Your task to perform on an android device: turn off translation in the chrome app Image 0: 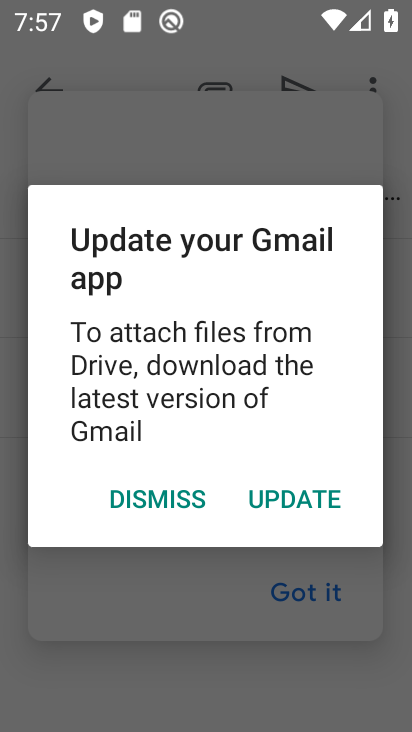
Step 0: press home button
Your task to perform on an android device: turn off translation in the chrome app Image 1: 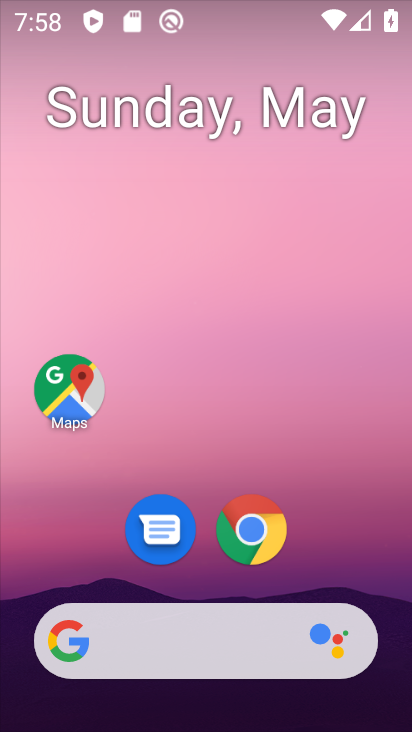
Step 1: click (255, 546)
Your task to perform on an android device: turn off translation in the chrome app Image 2: 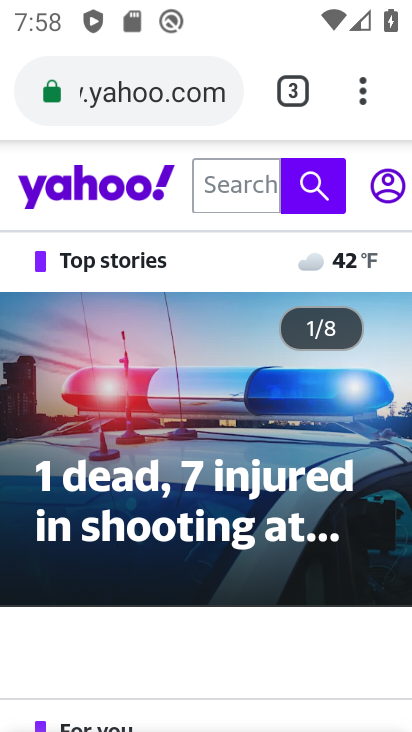
Step 2: click (378, 86)
Your task to perform on an android device: turn off translation in the chrome app Image 3: 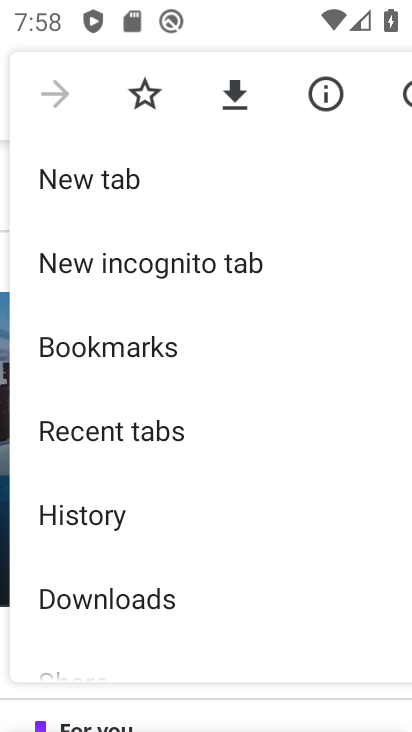
Step 3: drag from (237, 573) to (268, 225)
Your task to perform on an android device: turn off translation in the chrome app Image 4: 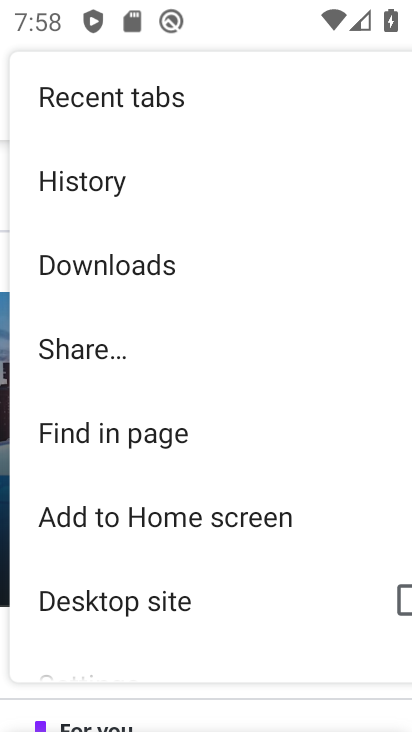
Step 4: drag from (206, 617) to (243, 359)
Your task to perform on an android device: turn off translation in the chrome app Image 5: 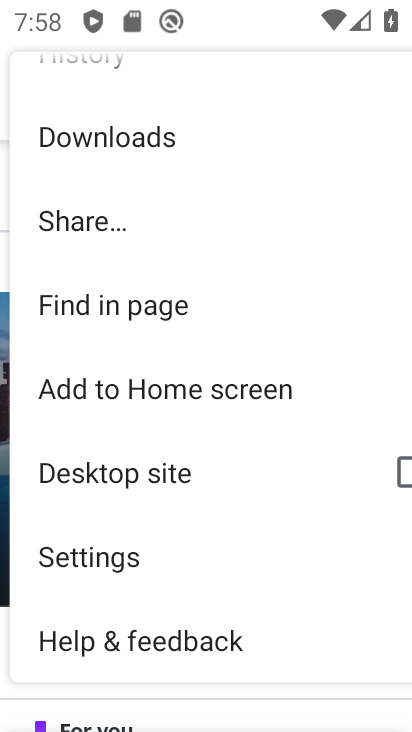
Step 5: click (220, 538)
Your task to perform on an android device: turn off translation in the chrome app Image 6: 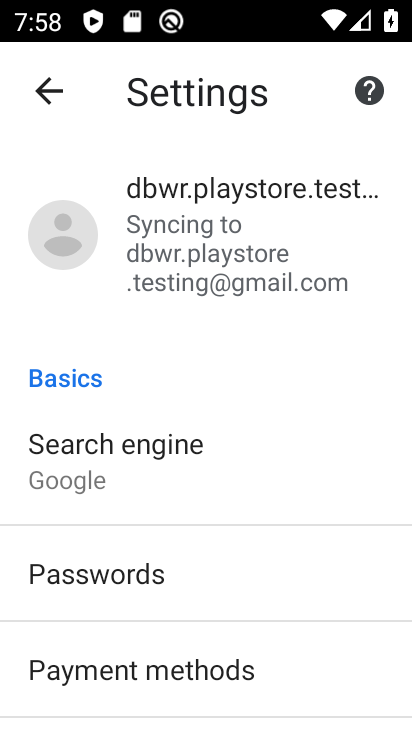
Step 6: task complete